Your task to perform on an android device: turn on the 24-hour format for clock Image 0: 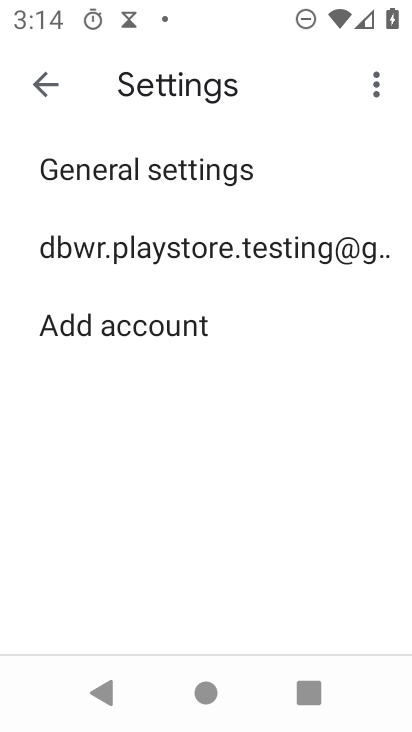
Step 0: press home button
Your task to perform on an android device: turn on the 24-hour format for clock Image 1: 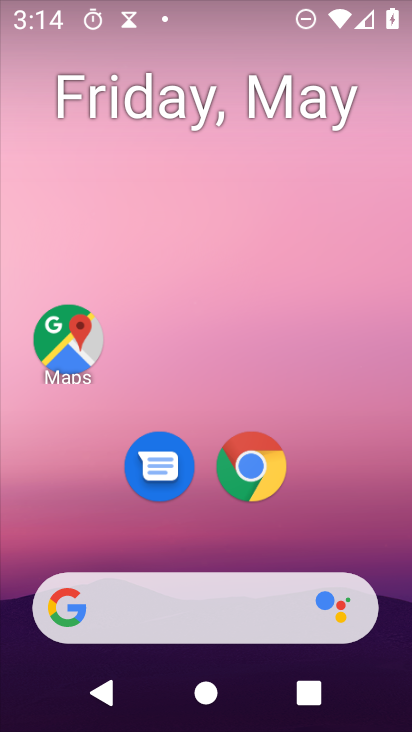
Step 1: drag from (361, 574) to (356, 80)
Your task to perform on an android device: turn on the 24-hour format for clock Image 2: 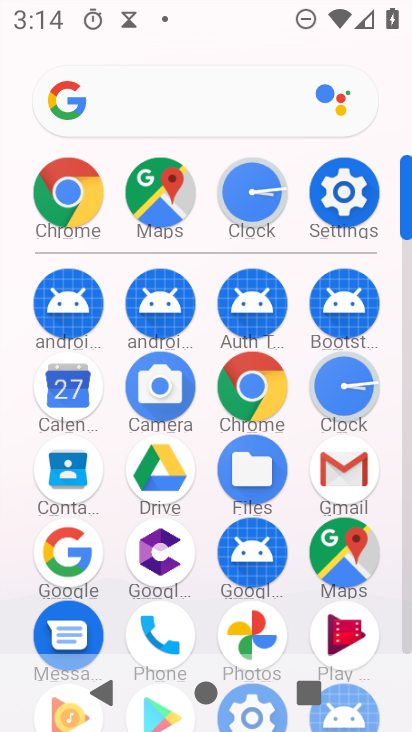
Step 2: click (259, 210)
Your task to perform on an android device: turn on the 24-hour format for clock Image 3: 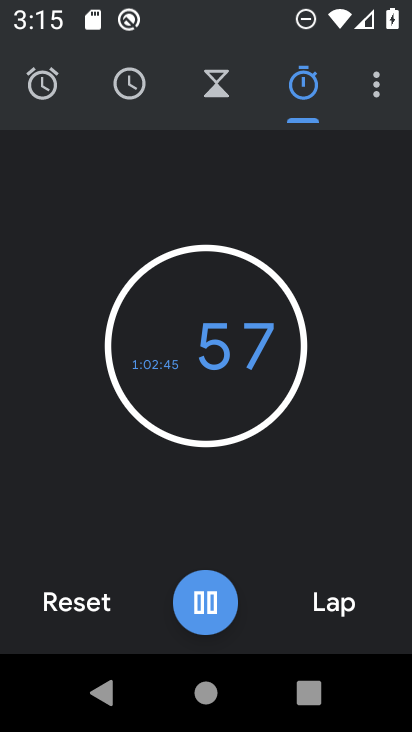
Step 3: click (390, 101)
Your task to perform on an android device: turn on the 24-hour format for clock Image 4: 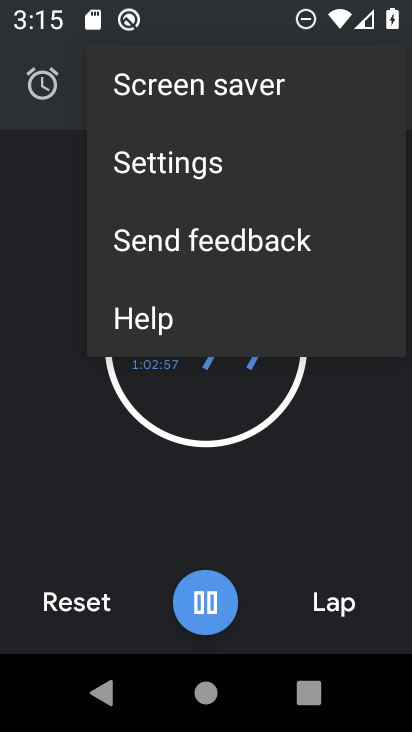
Step 4: click (166, 165)
Your task to perform on an android device: turn on the 24-hour format for clock Image 5: 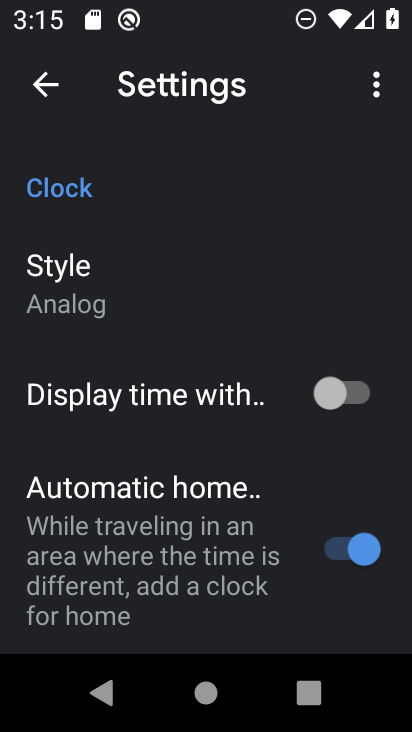
Step 5: drag from (158, 572) to (245, 162)
Your task to perform on an android device: turn on the 24-hour format for clock Image 6: 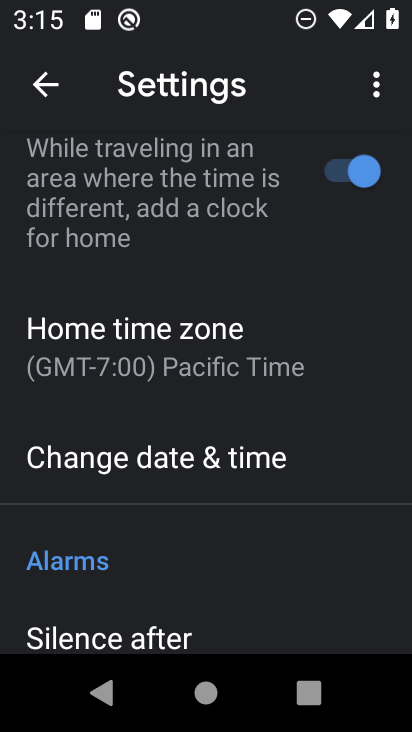
Step 6: click (147, 462)
Your task to perform on an android device: turn on the 24-hour format for clock Image 7: 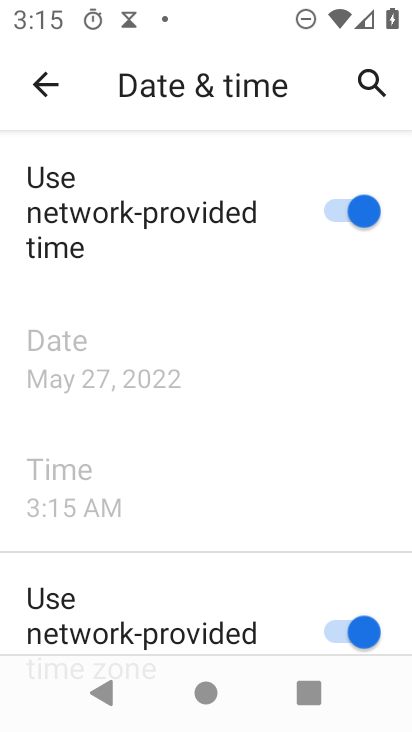
Step 7: task complete